Your task to perform on an android device: Go to ESPN.com Image 0: 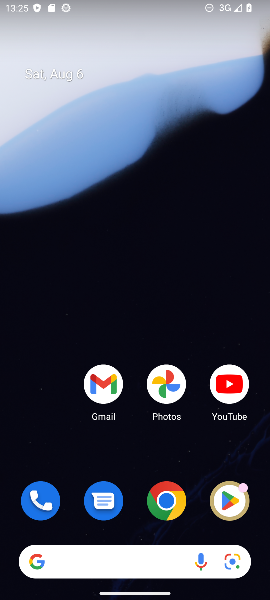
Step 0: click (165, 502)
Your task to perform on an android device: Go to ESPN.com Image 1: 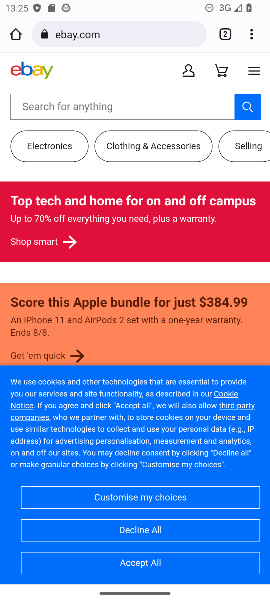
Step 1: click (107, 32)
Your task to perform on an android device: Go to ESPN.com Image 2: 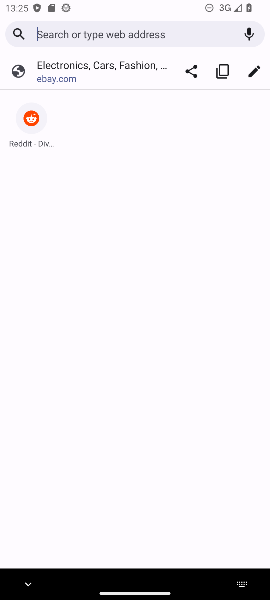
Step 2: type "www.espn.com"
Your task to perform on an android device: Go to ESPN.com Image 3: 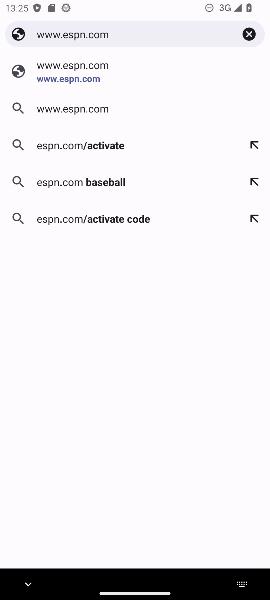
Step 3: click (61, 67)
Your task to perform on an android device: Go to ESPN.com Image 4: 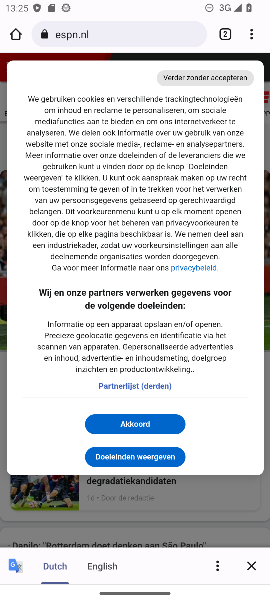
Step 4: task complete